Your task to perform on an android device: When is my next appointment? Image 0: 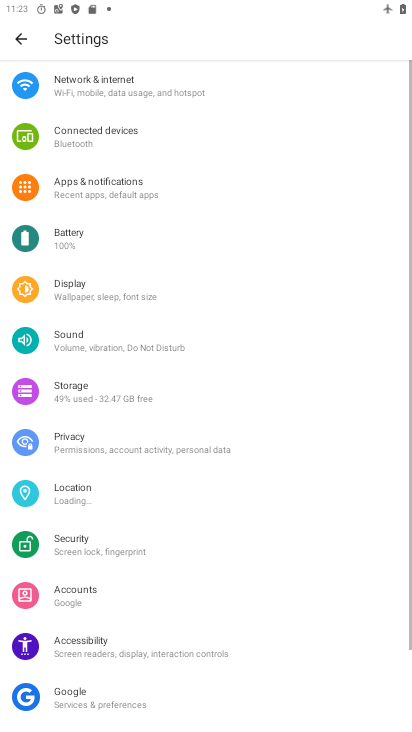
Step 0: press home button
Your task to perform on an android device: When is my next appointment? Image 1: 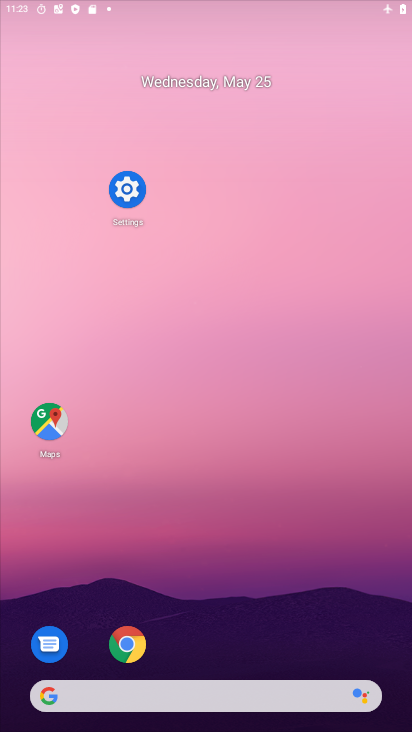
Step 1: drag from (195, 617) to (231, 135)
Your task to perform on an android device: When is my next appointment? Image 2: 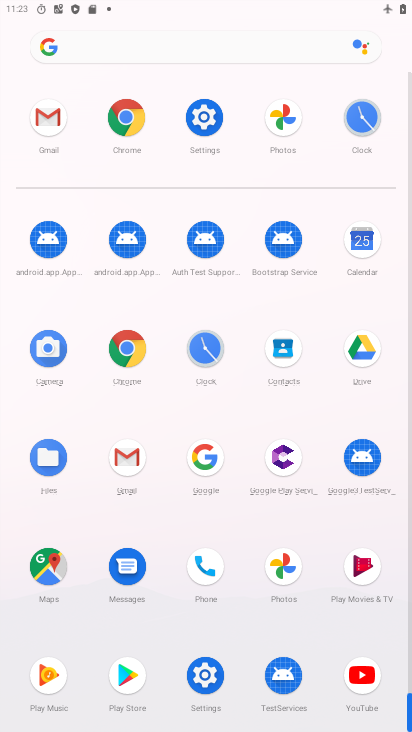
Step 2: click (371, 233)
Your task to perform on an android device: When is my next appointment? Image 3: 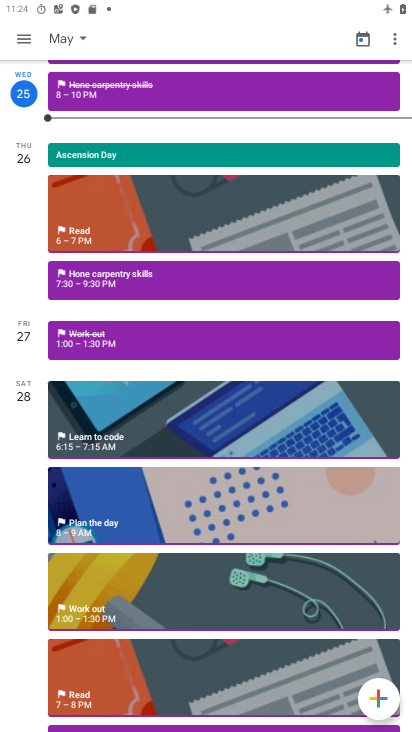
Step 3: click (64, 38)
Your task to perform on an android device: When is my next appointment? Image 4: 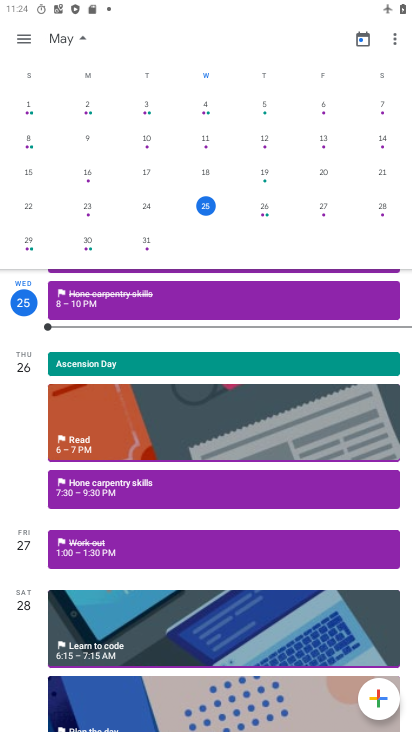
Step 4: click (262, 207)
Your task to perform on an android device: When is my next appointment? Image 5: 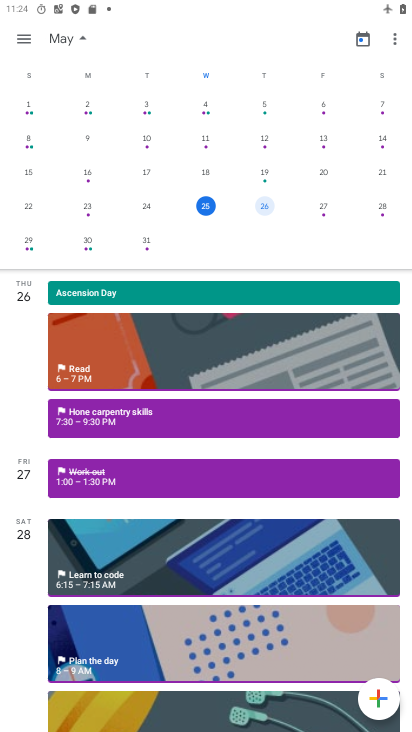
Step 5: task complete